Your task to perform on an android device: Open Yahoo.com Image 0: 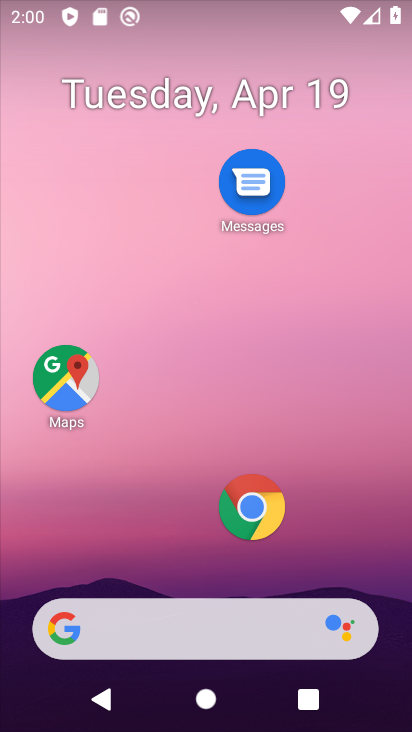
Step 0: click (183, 629)
Your task to perform on an android device: Open Yahoo.com Image 1: 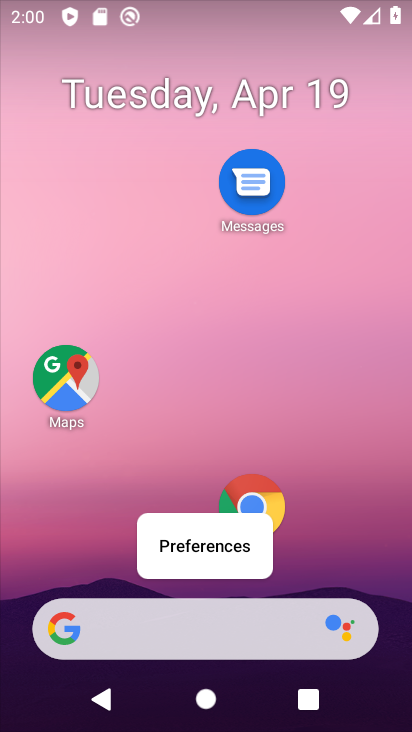
Step 1: click (194, 622)
Your task to perform on an android device: Open Yahoo.com Image 2: 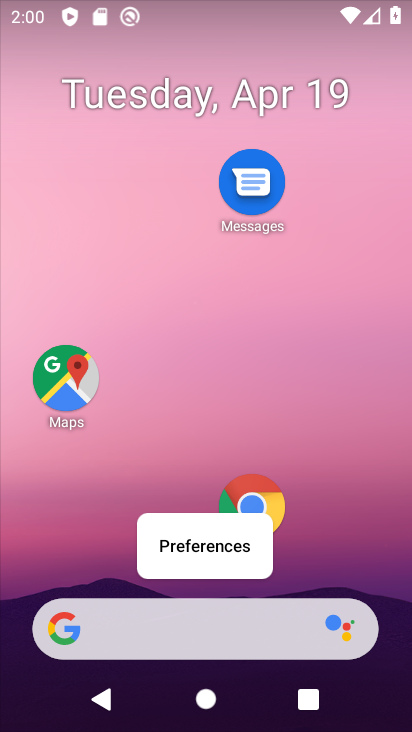
Step 2: click (148, 623)
Your task to perform on an android device: Open Yahoo.com Image 3: 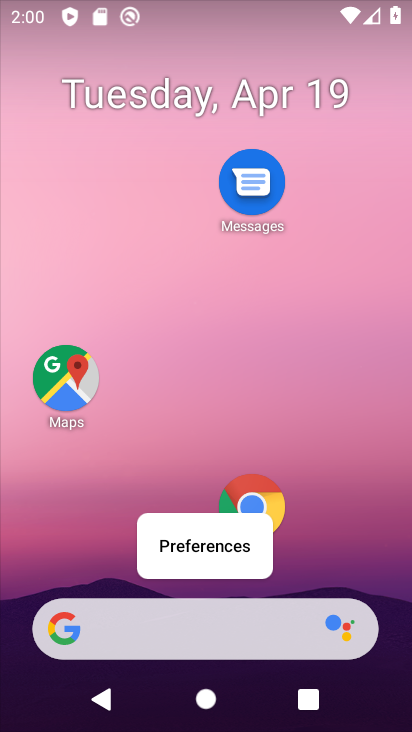
Step 3: click (238, 643)
Your task to perform on an android device: Open Yahoo.com Image 4: 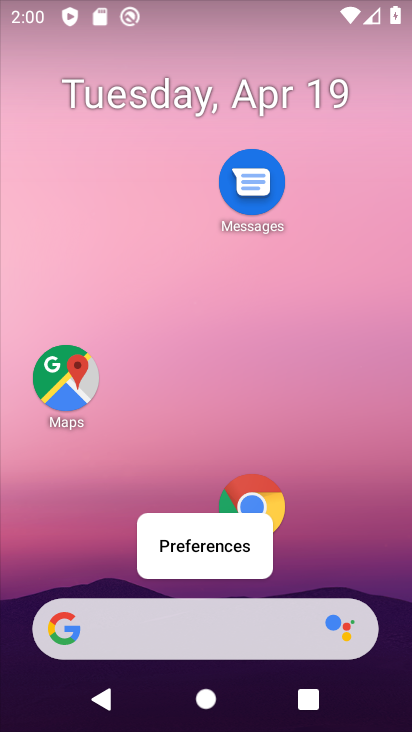
Step 4: click (163, 629)
Your task to perform on an android device: Open Yahoo.com Image 5: 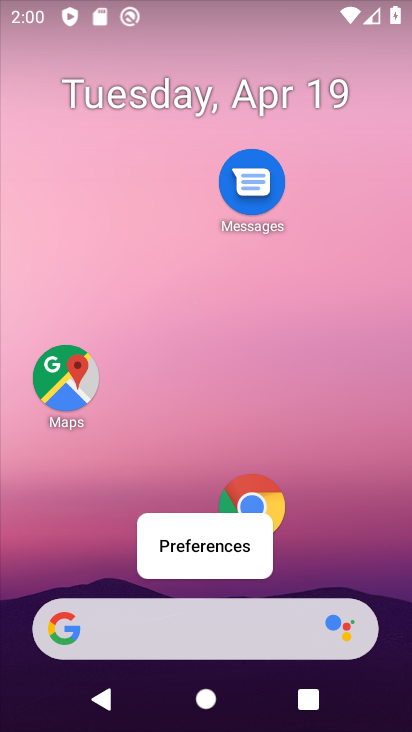
Step 5: drag from (276, 538) to (378, 66)
Your task to perform on an android device: Open Yahoo.com Image 6: 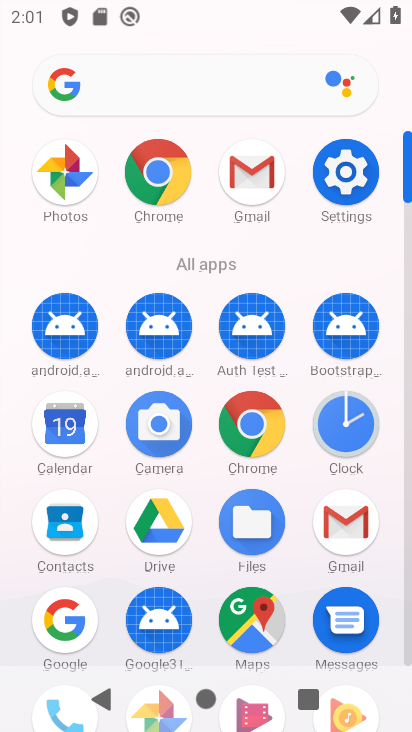
Step 6: click (246, 421)
Your task to perform on an android device: Open Yahoo.com Image 7: 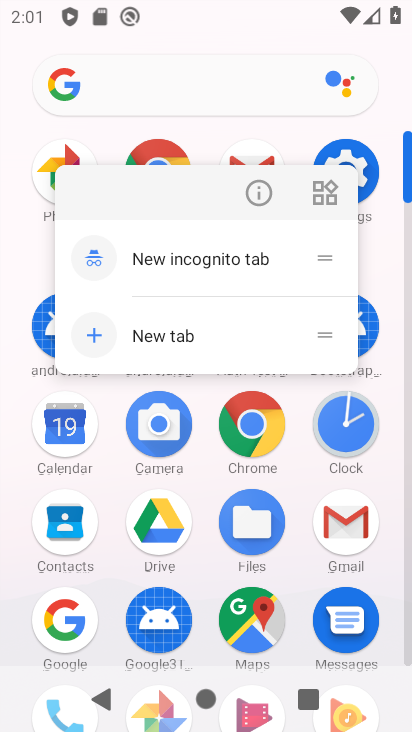
Step 7: click (262, 443)
Your task to perform on an android device: Open Yahoo.com Image 8: 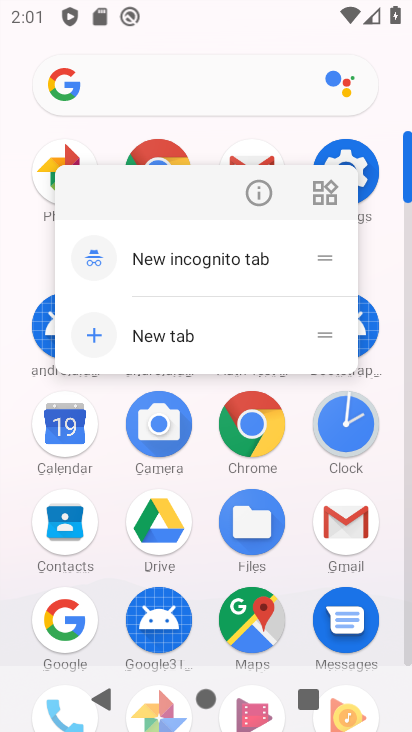
Step 8: click (257, 432)
Your task to perform on an android device: Open Yahoo.com Image 9: 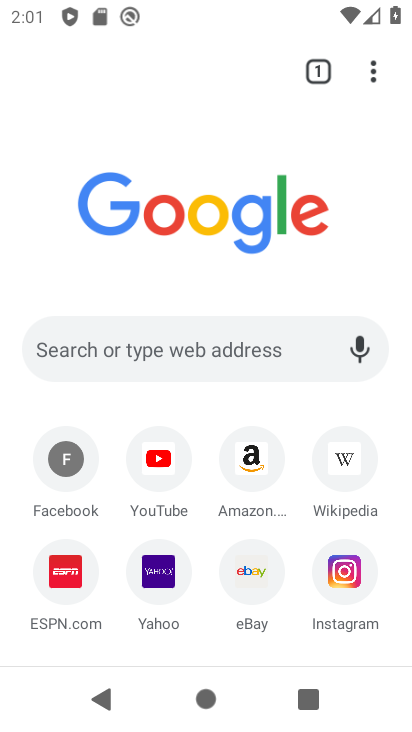
Step 9: click (172, 343)
Your task to perform on an android device: Open Yahoo.com Image 10: 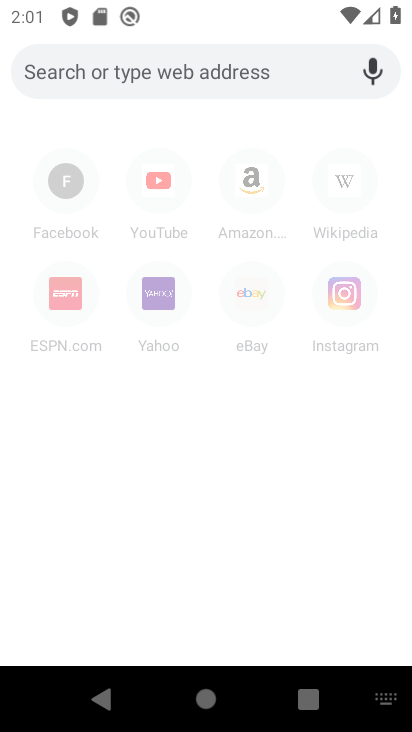
Step 10: type "yahoo.com"
Your task to perform on an android device: Open Yahoo.com Image 11: 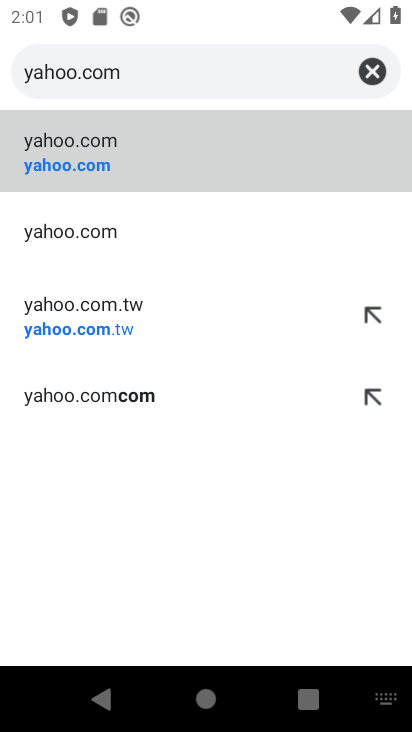
Step 11: click (130, 156)
Your task to perform on an android device: Open Yahoo.com Image 12: 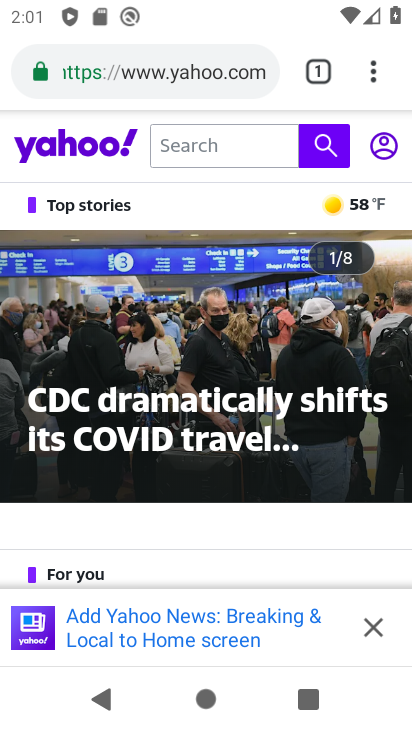
Step 12: task complete